Your task to perform on an android device: What's on my calendar tomorrow? Image 0: 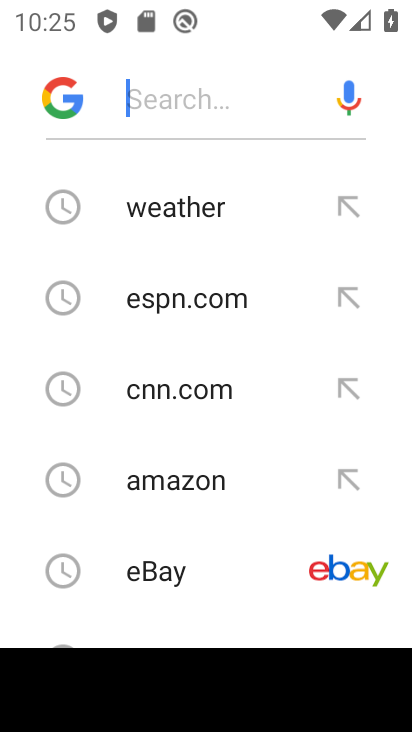
Step 0: press home button
Your task to perform on an android device: What's on my calendar tomorrow? Image 1: 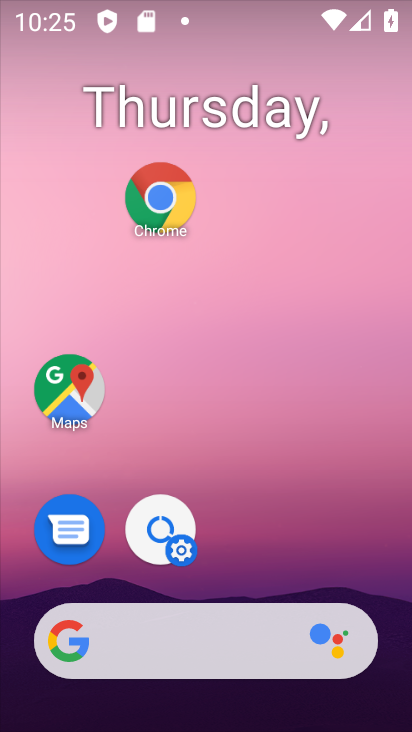
Step 1: drag from (201, 579) to (201, 10)
Your task to perform on an android device: What's on my calendar tomorrow? Image 2: 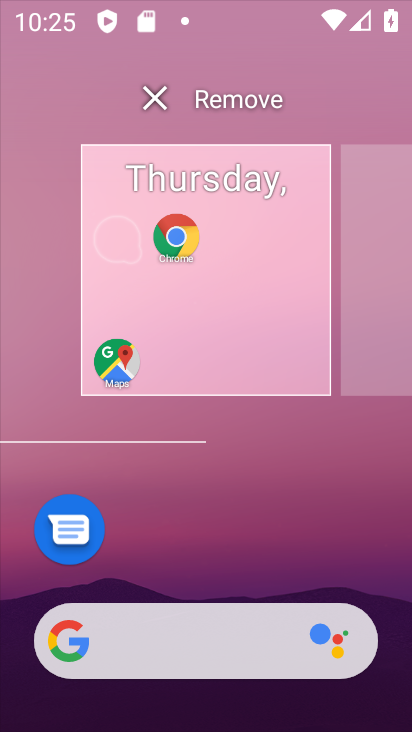
Step 2: drag from (202, 539) to (176, 51)
Your task to perform on an android device: What's on my calendar tomorrow? Image 3: 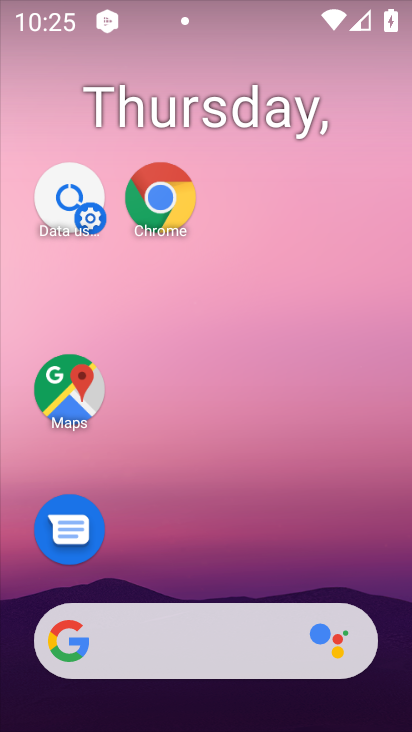
Step 3: drag from (213, 556) to (292, 8)
Your task to perform on an android device: What's on my calendar tomorrow? Image 4: 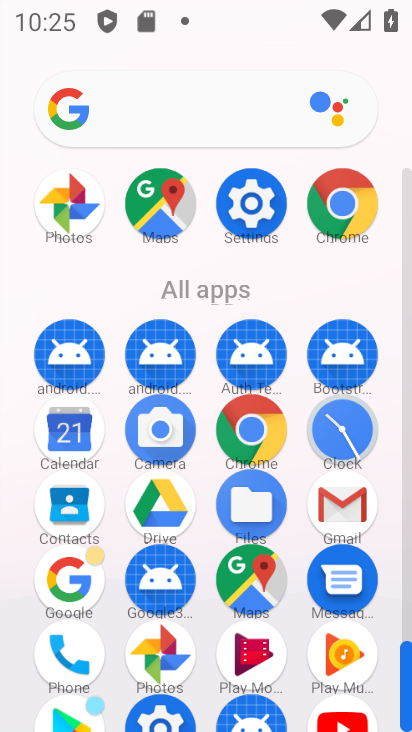
Step 4: click (77, 455)
Your task to perform on an android device: What's on my calendar tomorrow? Image 5: 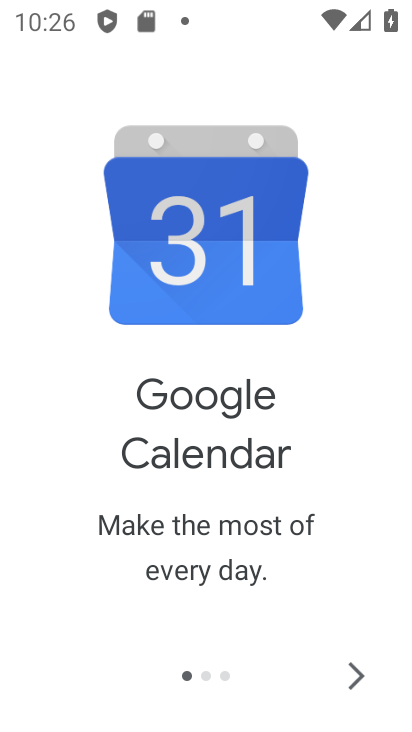
Step 5: click (362, 664)
Your task to perform on an android device: What's on my calendar tomorrow? Image 6: 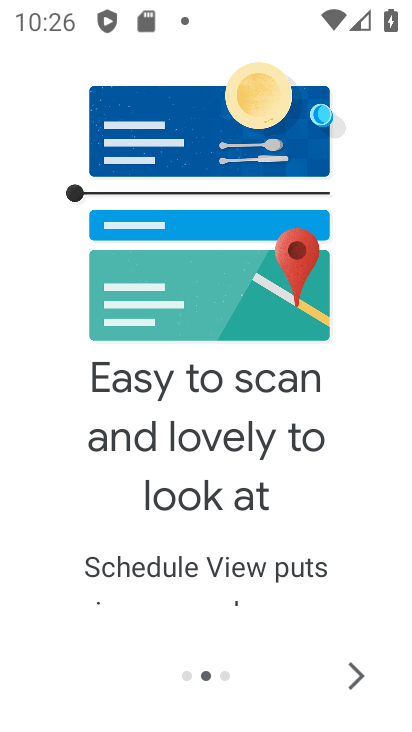
Step 6: click (353, 663)
Your task to perform on an android device: What's on my calendar tomorrow? Image 7: 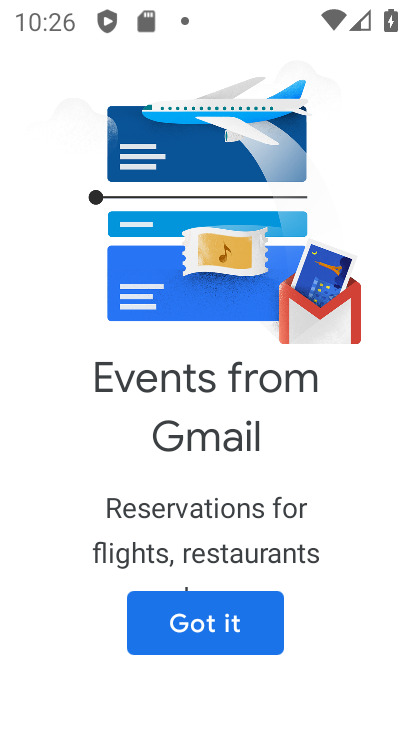
Step 7: click (242, 627)
Your task to perform on an android device: What's on my calendar tomorrow? Image 8: 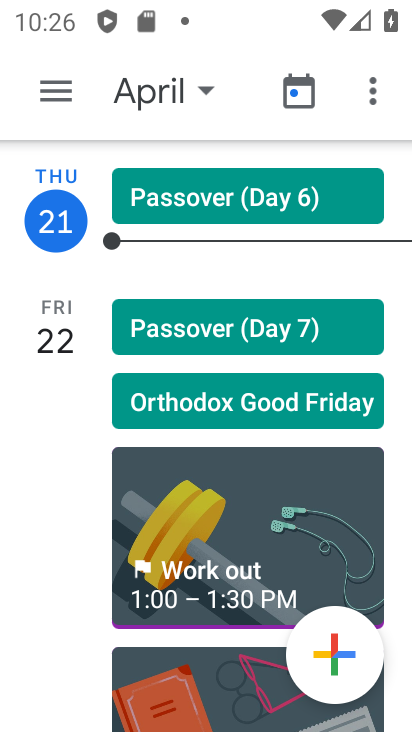
Step 8: click (41, 342)
Your task to perform on an android device: What's on my calendar tomorrow? Image 9: 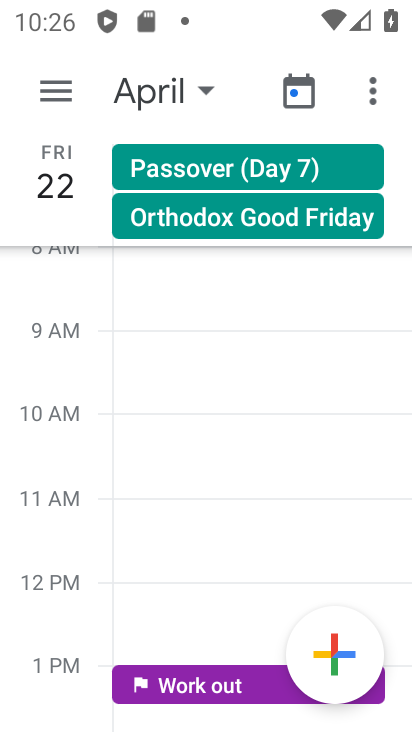
Step 9: task complete